Your task to perform on an android device: turn on javascript in the chrome app Image 0: 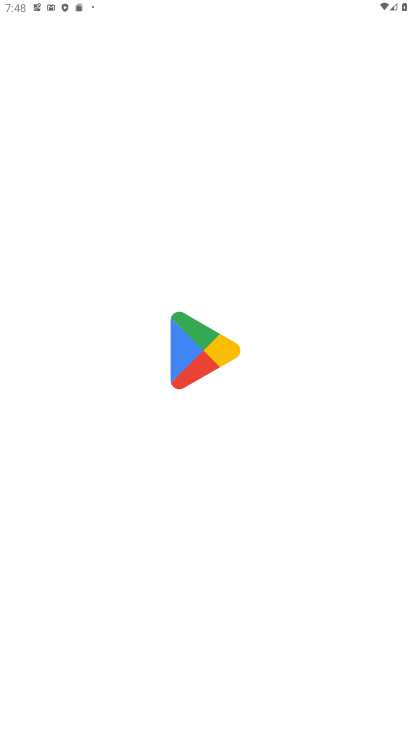
Step 0: press back button
Your task to perform on an android device: turn on javascript in the chrome app Image 1: 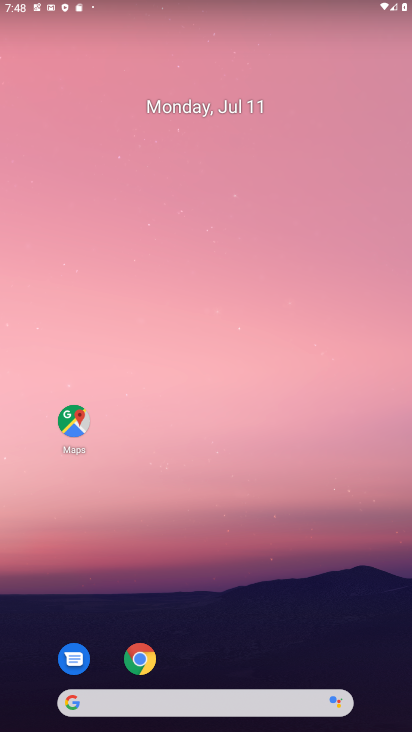
Step 1: drag from (250, 406) to (206, 148)
Your task to perform on an android device: turn on javascript in the chrome app Image 2: 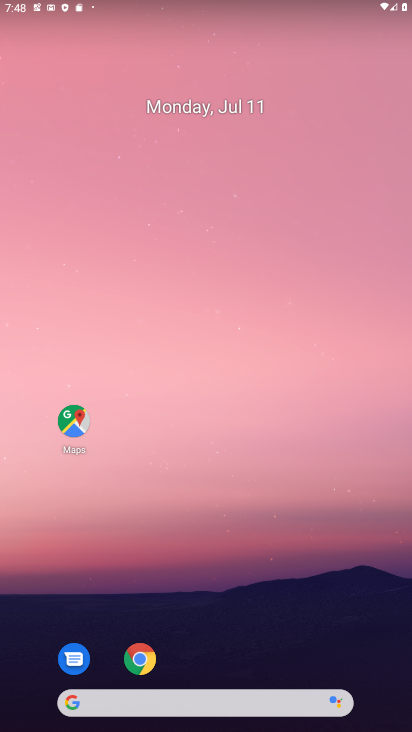
Step 2: click (177, 3)
Your task to perform on an android device: turn on javascript in the chrome app Image 3: 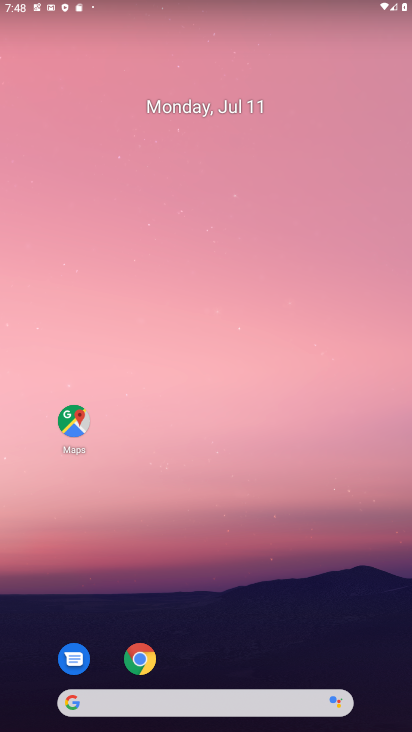
Step 3: drag from (206, 612) to (209, 12)
Your task to perform on an android device: turn on javascript in the chrome app Image 4: 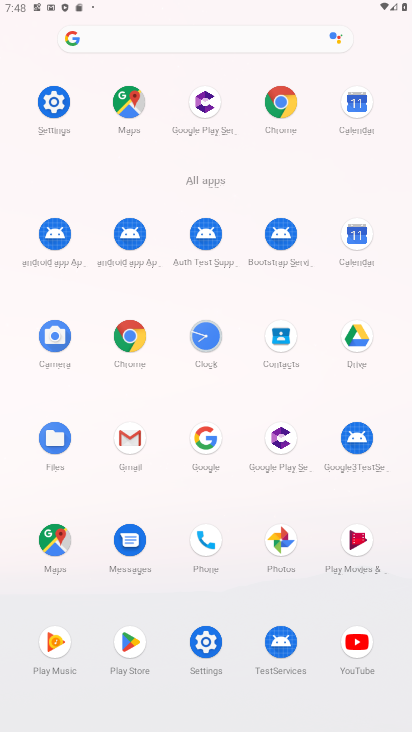
Step 4: click (284, 100)
Your task to perform on an android device: turn on javascript in the chrome app Image 5: 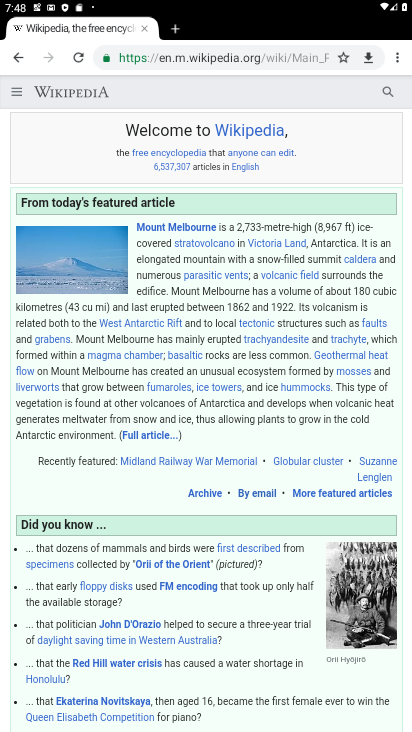
Step 5: press back button
Your task to perform on an android device: turn on javascript in the chrome app Image 6: 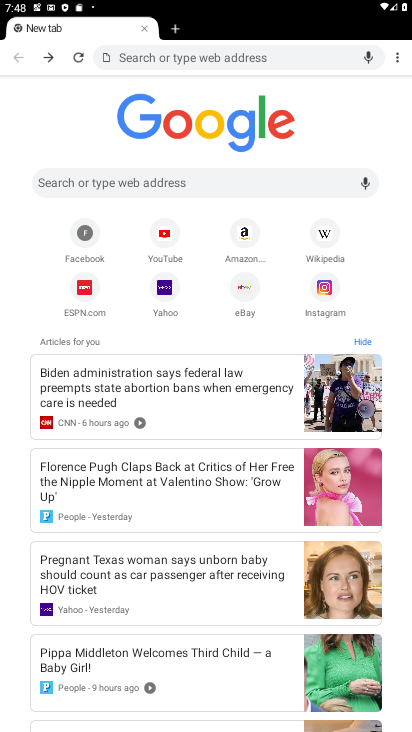
Step 6: drag from (394, 58) to (273, 263)
Your task to perform on an android device: turn on javascript in the chrome app Image 7: 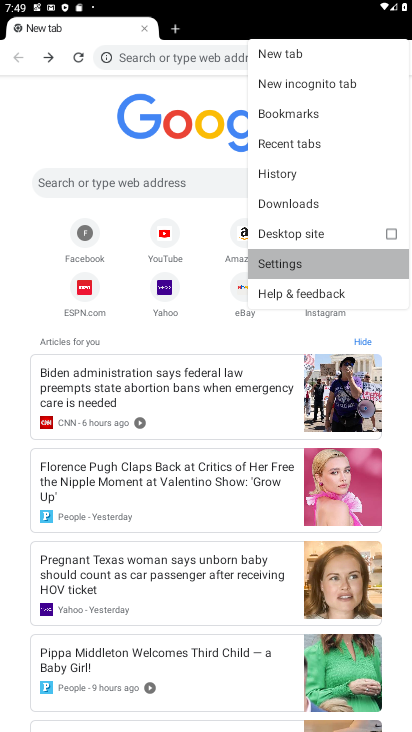
Step 7: click (272, 251)
Your task to perform on an android device: turn on javascript in the chrome app Image 8: 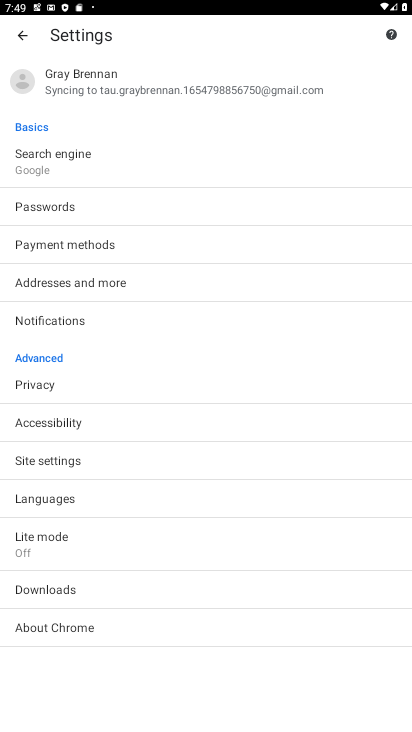
Step 8: click (40, 457)
Your task to perform on an android device: turn on javascript in the chrome app Image 9: 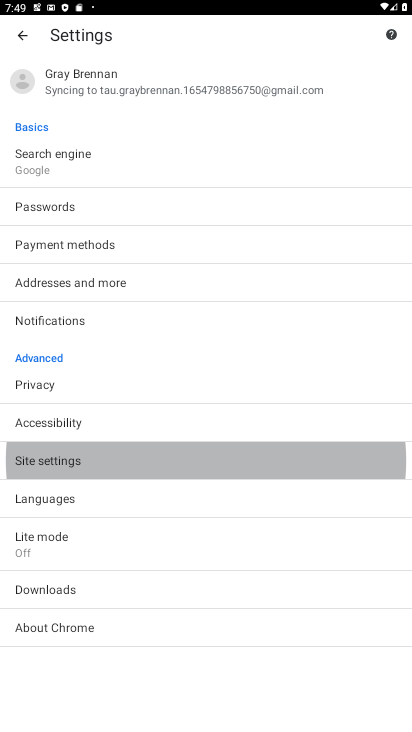
Step 9: click (39, 456)
Your task to perform on an android device: turn on javascript in the chrome app Image 10: 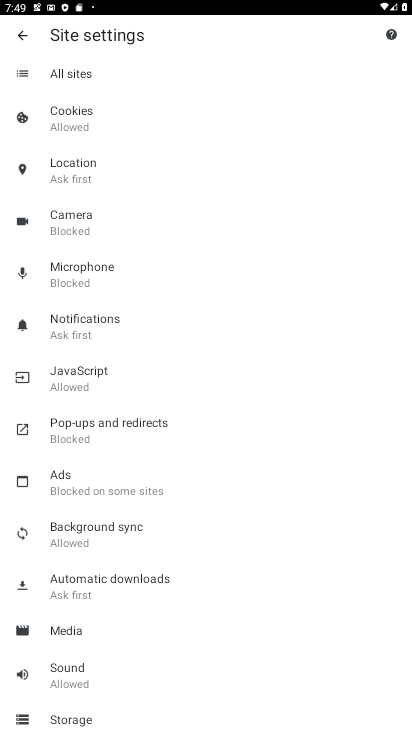
Step 10: click (63, 372)
Your task to perform on an android device: turn on javascript in the chrome app Image 11: 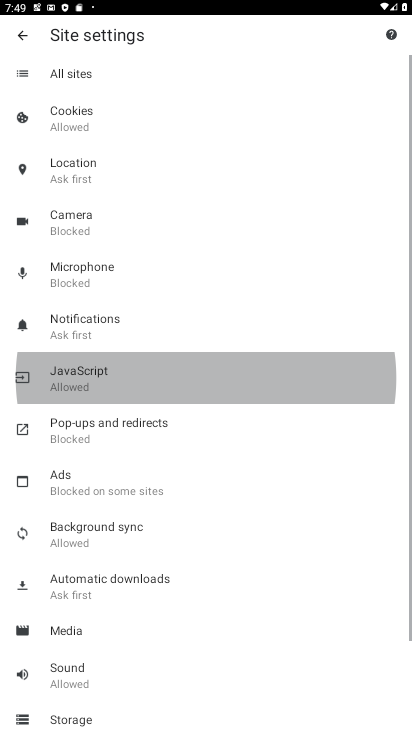
Step 11: click (63, 373)
Your task to perform on an android device: turn on javascript in the chrome app Image 12: 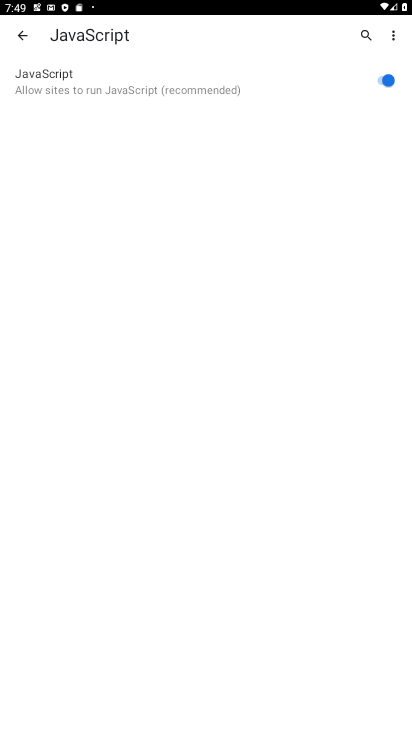
Step 12: task complete